Your task to perform on an android device: empty trash in google photos Image 0: 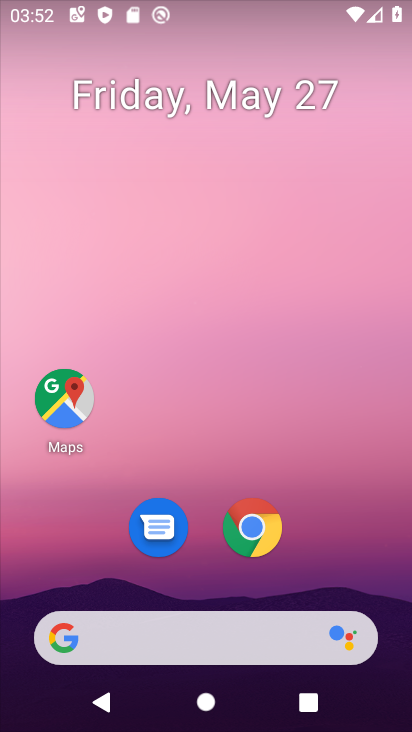
Step 0: drag from (367, 524) to (310, 166)
Your task to perform on an android device: empty trash in google photos Image 1: 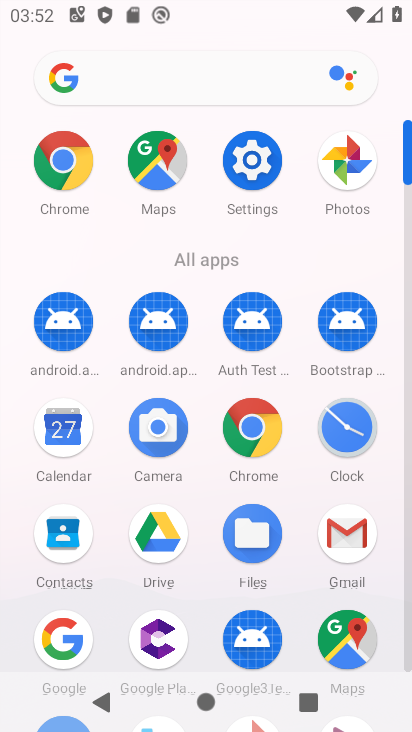
Step 1: click (309, 185)
Your task to perform on an android device: empty trash in google photos Image 2: 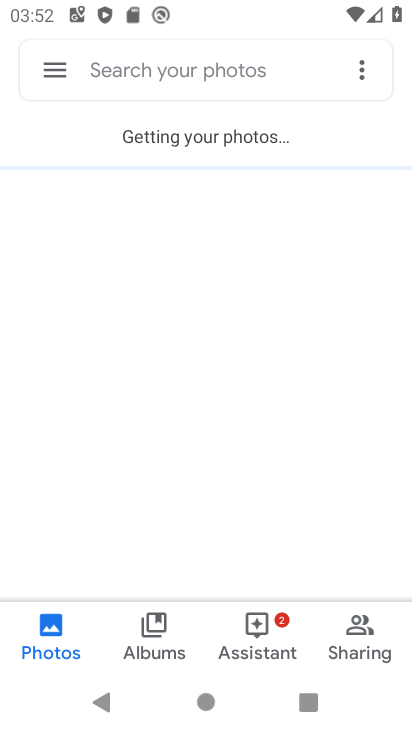
Step 2: click (62, 82)
Your task to perform on an android device: empty trash in google photos Image 3: 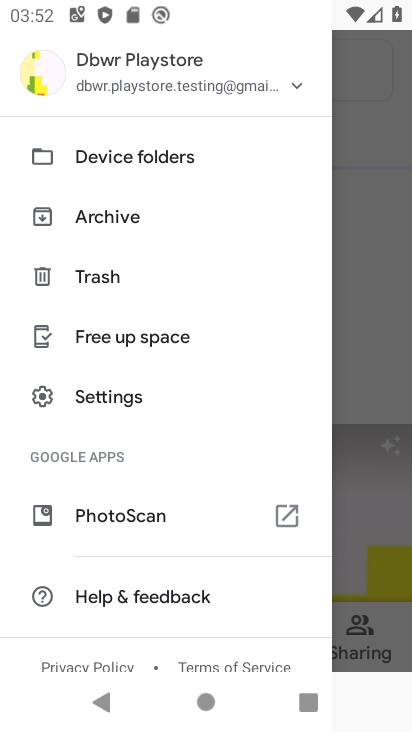
Step 3: click (116, 275)
Your task to perform on an android device: empty trash in google photos Image 4: 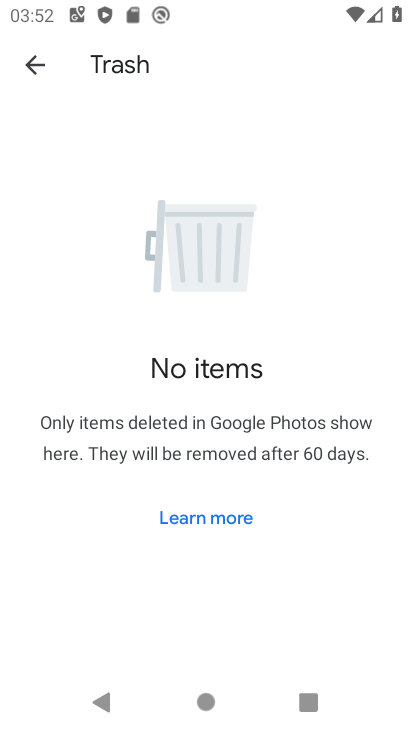
Step 4: task complete